Your task to perform on an android device: Open Google Chrome and click the shortcut for Amazon.com Image 0: 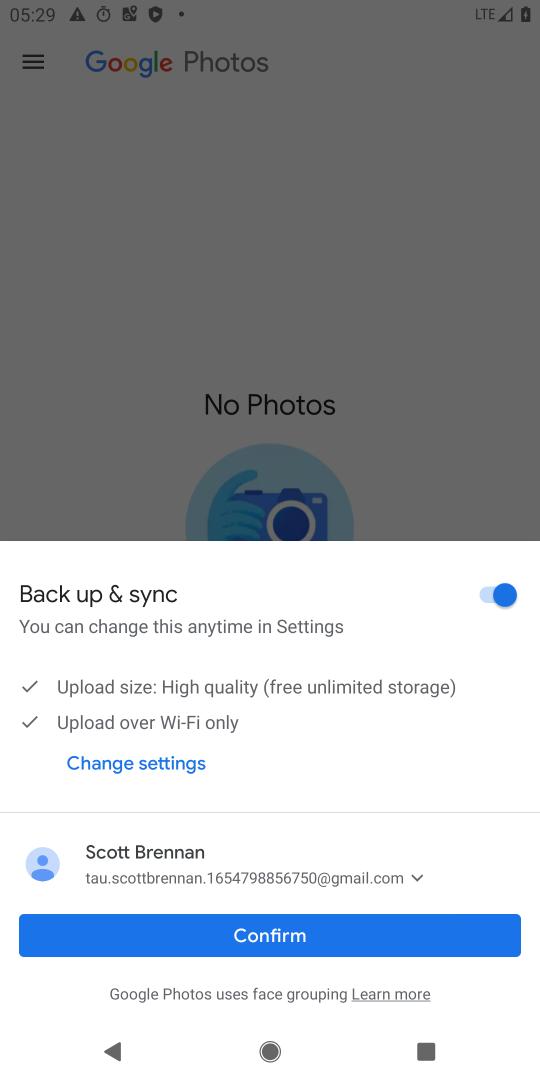
Step 0: press home button
Your task to perform on an android device: Open Google Chrome and click the shortcut for Amazon.com Image 1: 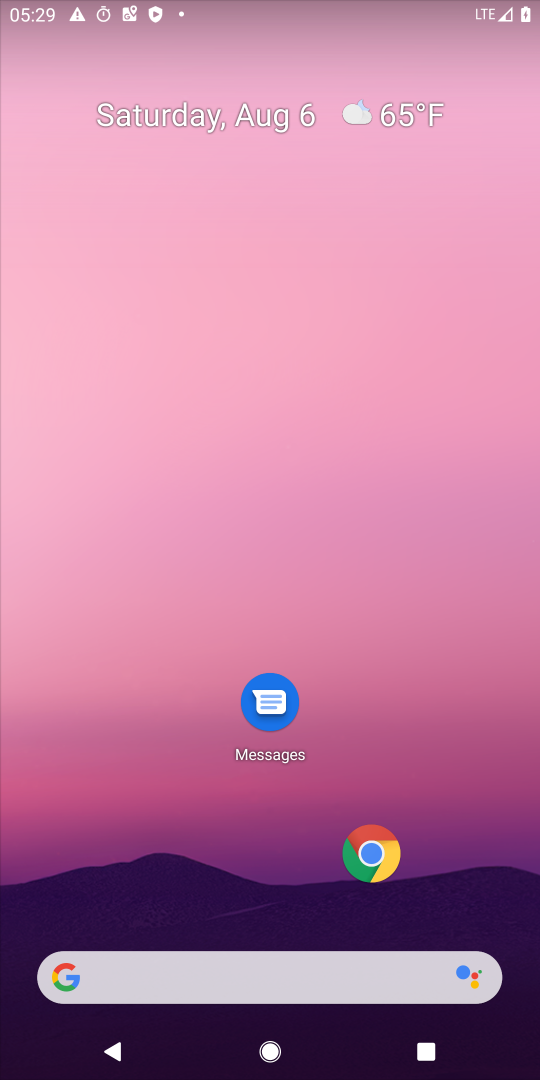
Step 1: drag from (167, 805) to (195, 87)
Your task to perform on an android device: Open Google Chrome and click the shortcut for Amazon.com Image 2: 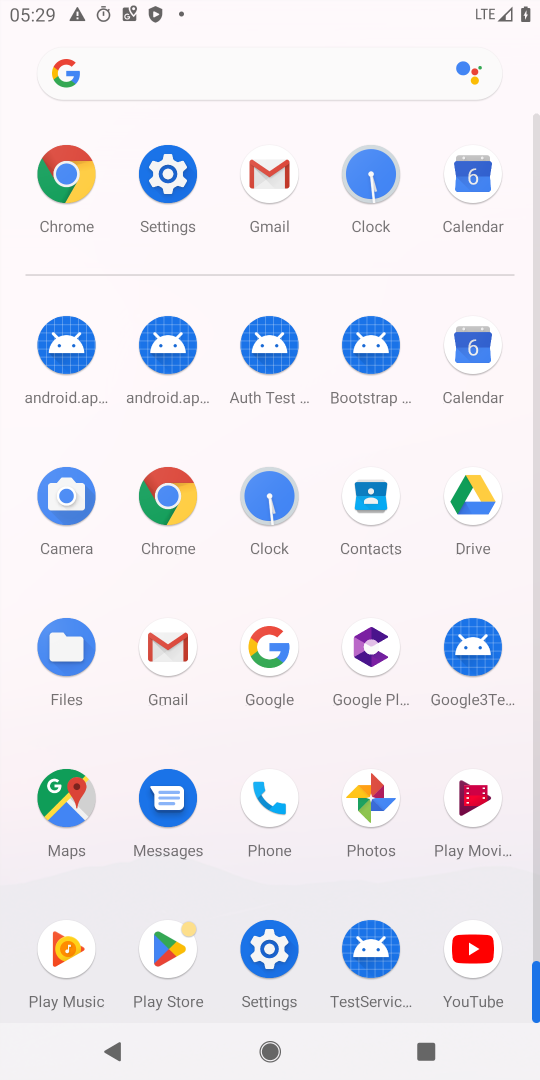
Step 2: click (174, 494)
Your task to perform on an android device: Open Google Chrome and click the shortcut for Amazon.com Image 3: 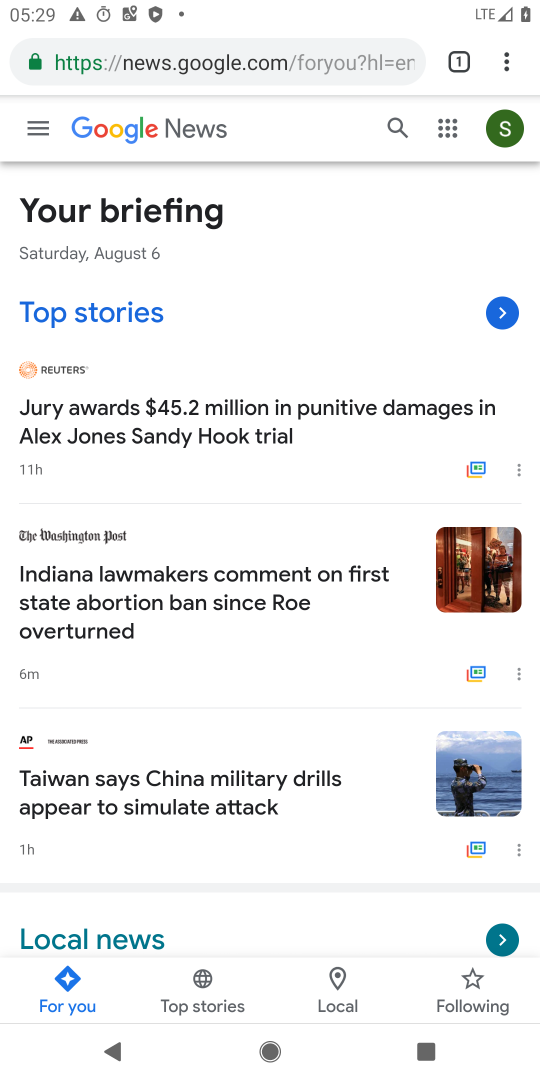
Step 3: drag from (504, 59) to (327, 116)
Your task to perform on an android device: Open Google Chrome and click the shortcut for Amazon.com Image 4: 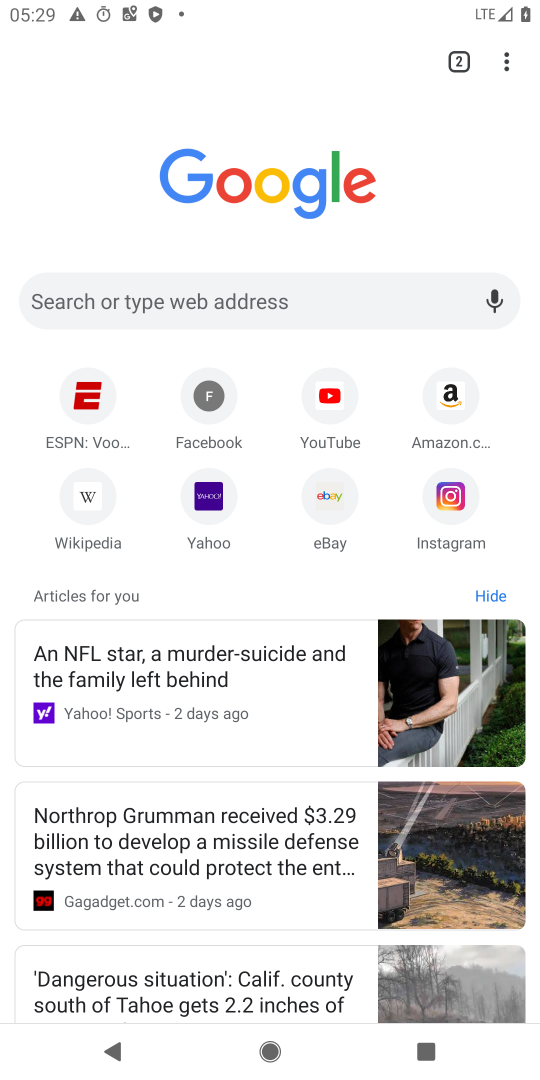
Step 4: click (445, 404)
Your task to perform on an android device: Open Google Chrome and click the shortcut for Amazon.com Image 5: 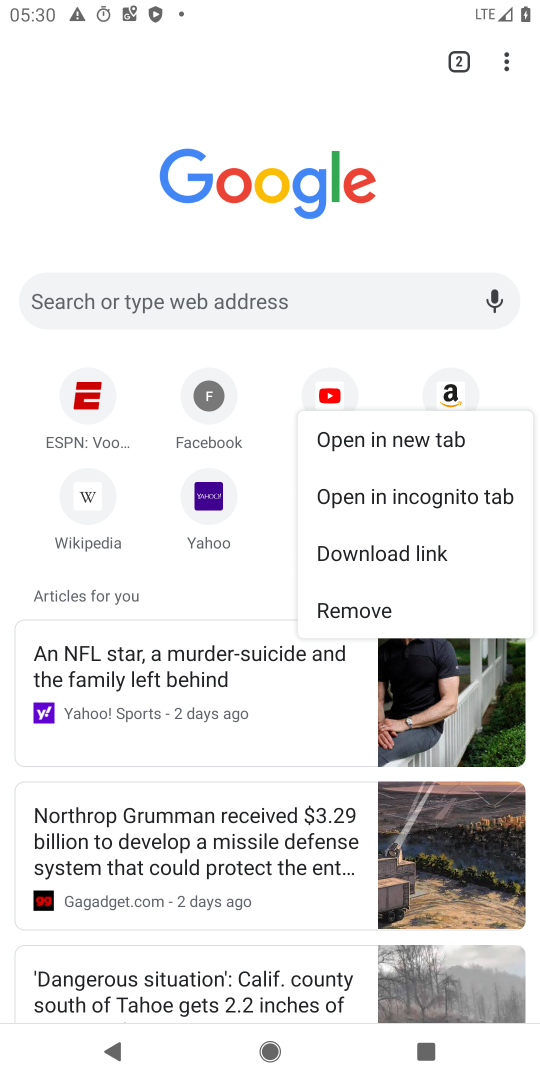
Step 5: task complete